Your task to perform on an android device: Go to eBay Image 0: 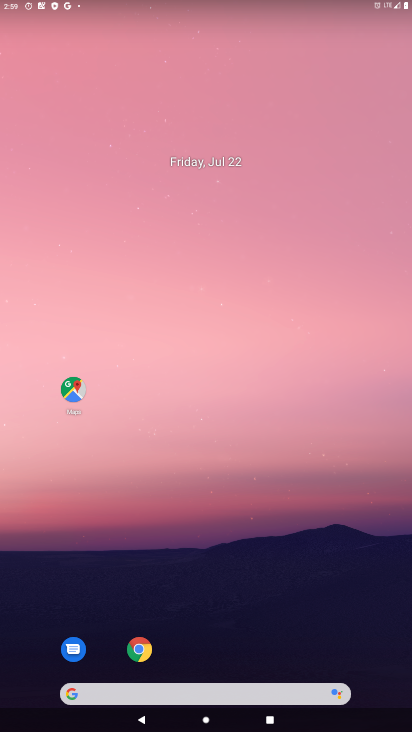
Step 0: drag from (305, 575) to (267, 112)
Your task to perform on an android device: Go to eBay Image 1: 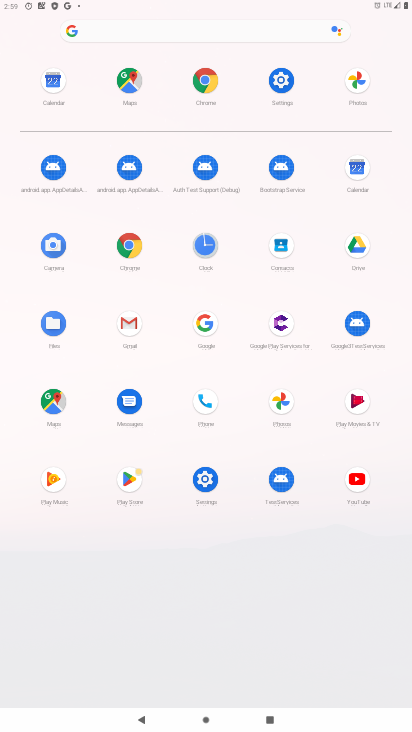
Step 1: click (206, 84)
Your task to perform on an android device: Go to eBay Image 2: 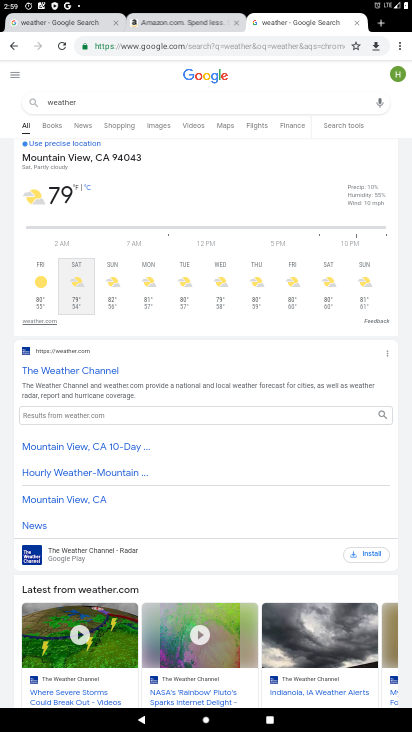
Step 2: click (242, 48)
Your task to perform on an android device: Go to eBay Image 3: 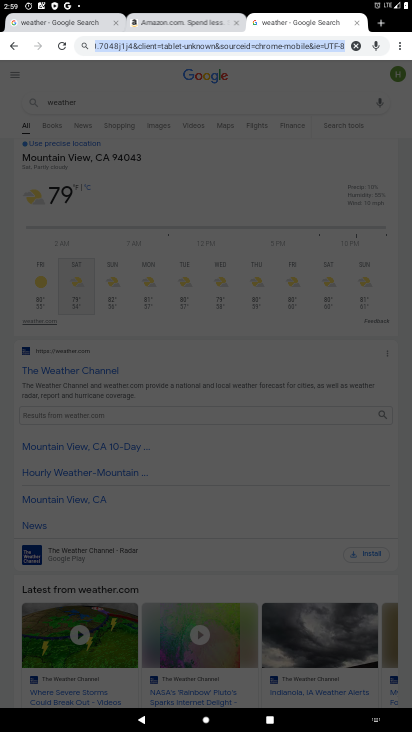
Step 3: type "ebay"
Your task to perform on an android device: Go to eBay Image 4: 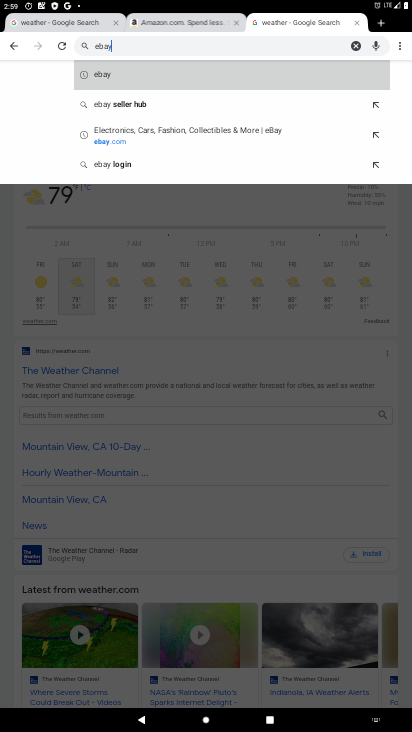
Step 4: click (142, 71)
Your task to perform on an android device: Go to eBay Image 5: 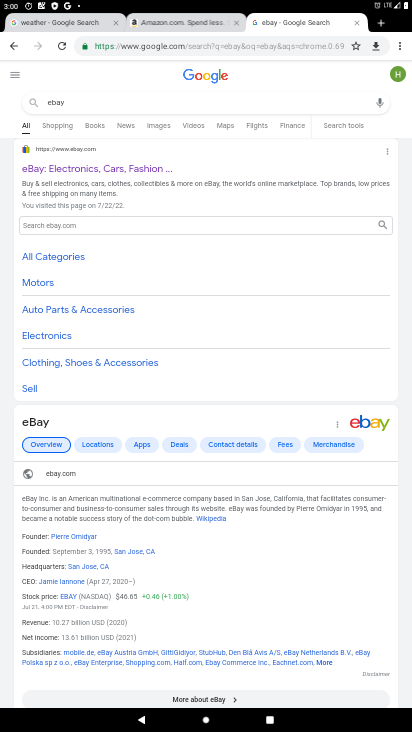
Step 5: click (41, 174)
Your task to perform on an android device: Go to eBay Image 6: 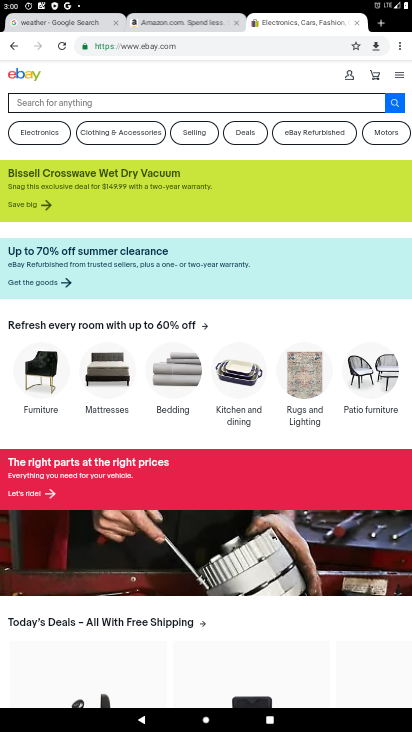
Step 6: task complete